Your task to perform on an android device: install app "Nova Launcher" Image 0: 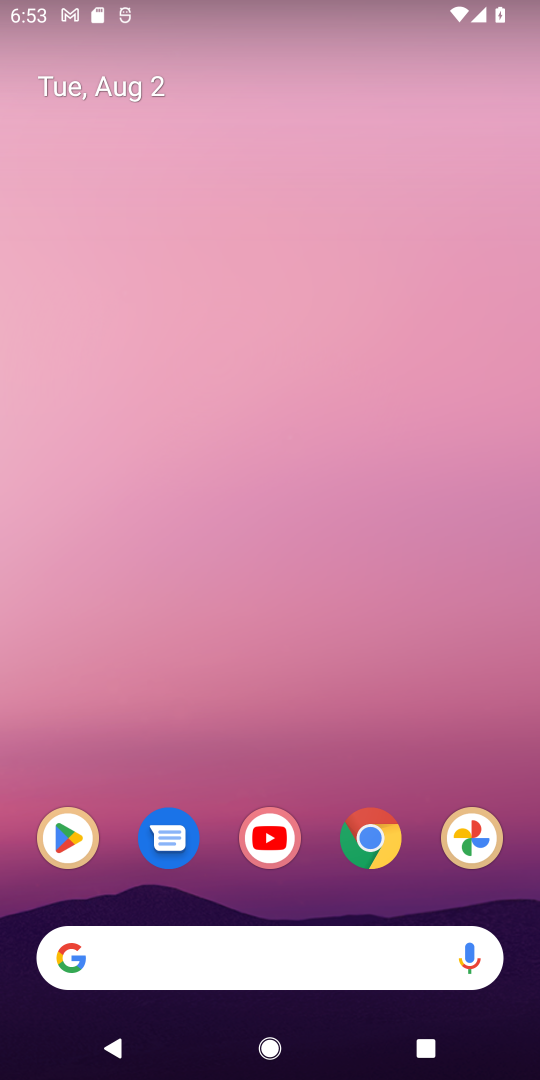
Step 0: click (59, 846)
Your task to perform on an android device: install app "Nova Launcher" Image 1: 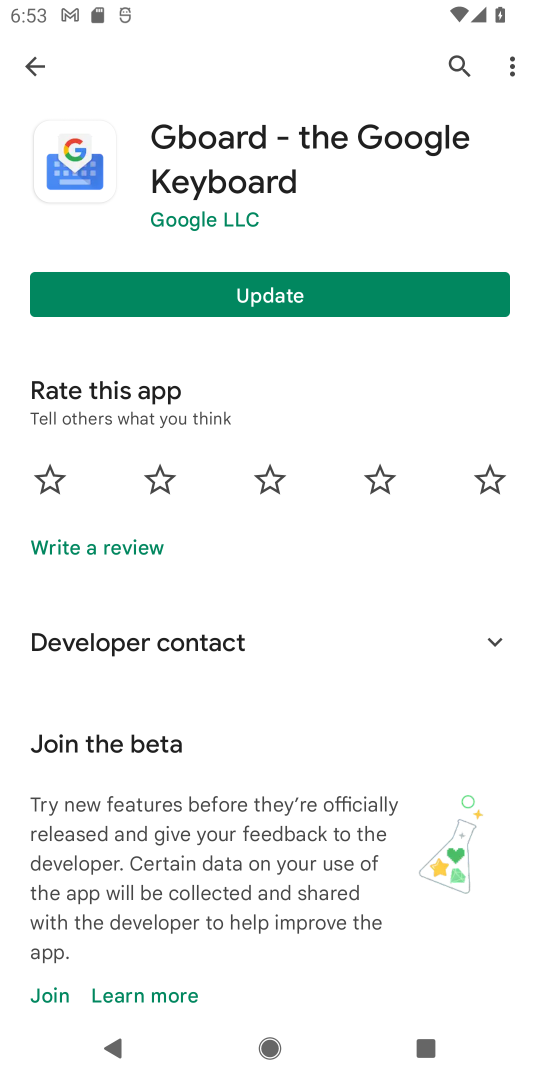
Step 1: click (450, 67)
Your task to perform on an android device: install app "Nova Launcher" Image 2: 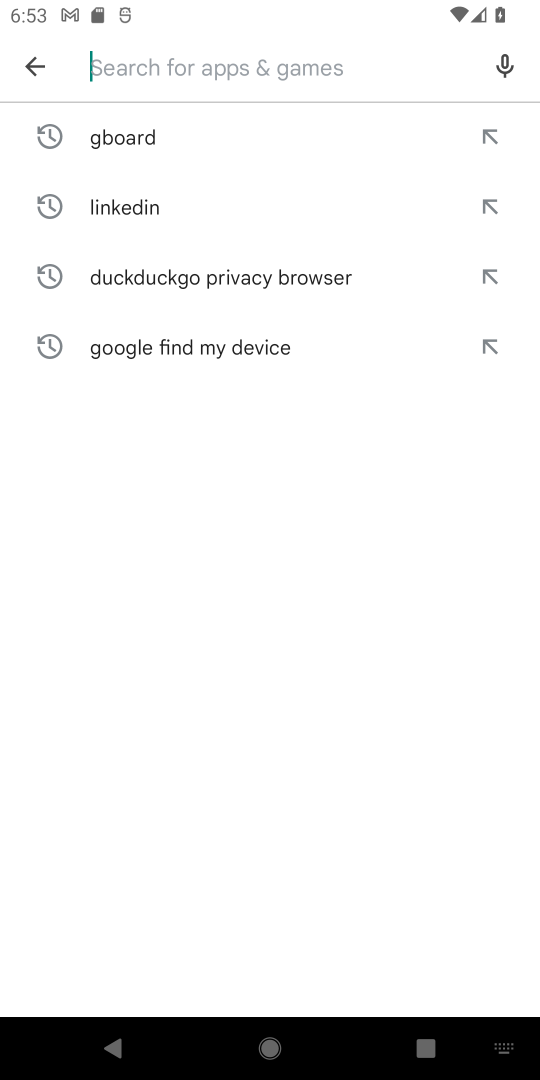
Step 2: type "nova launcher"
Your task to perform on an android device: install app "Nova Launcher" Image 3: 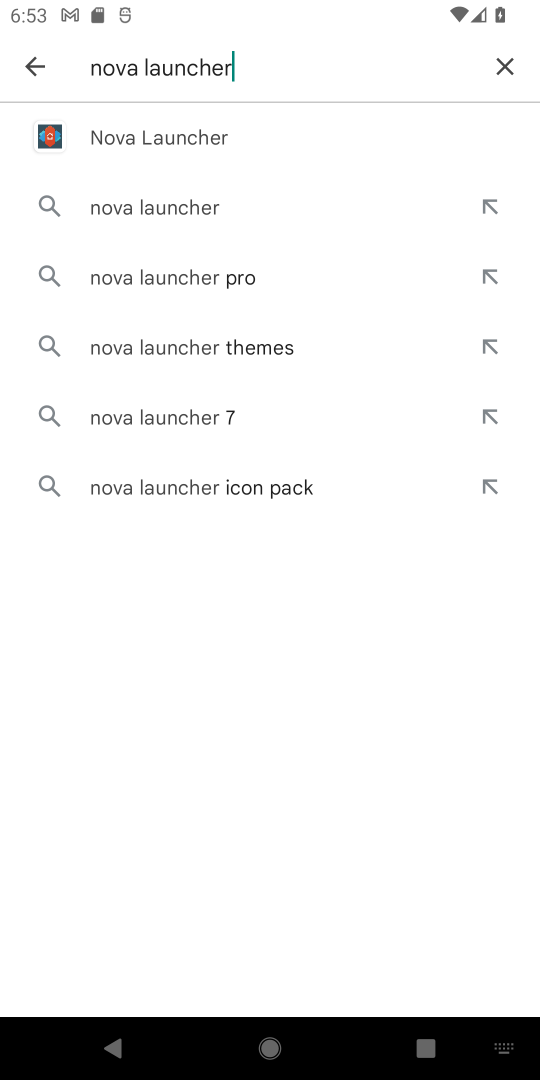
Step 3: click (270, 118)
Your task to perform on an android device: install app "Nova Launcher" Image 4: 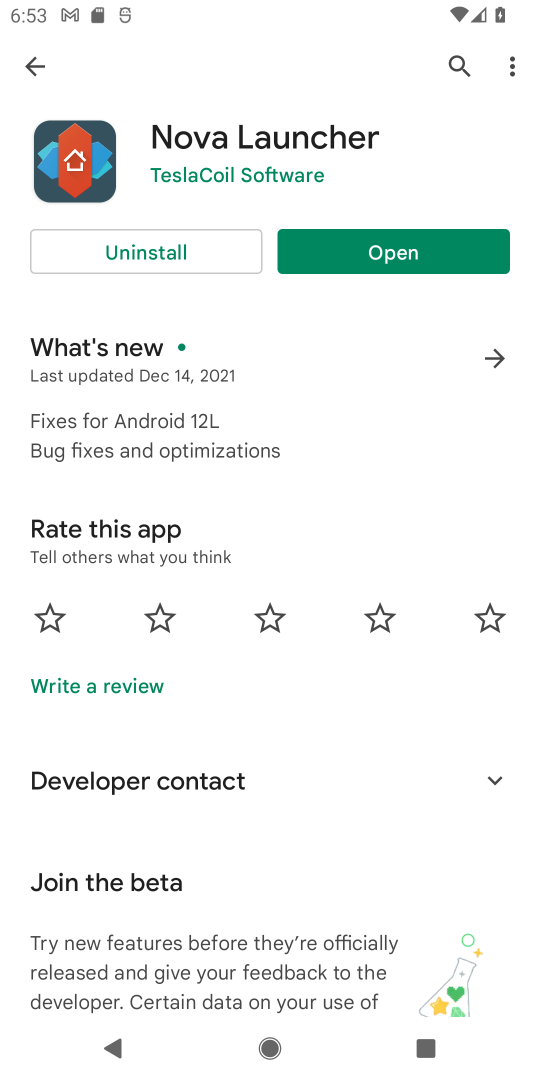
Step 4: task complete